Your task to perform on an android device: Go to accessibility settings Image 0: 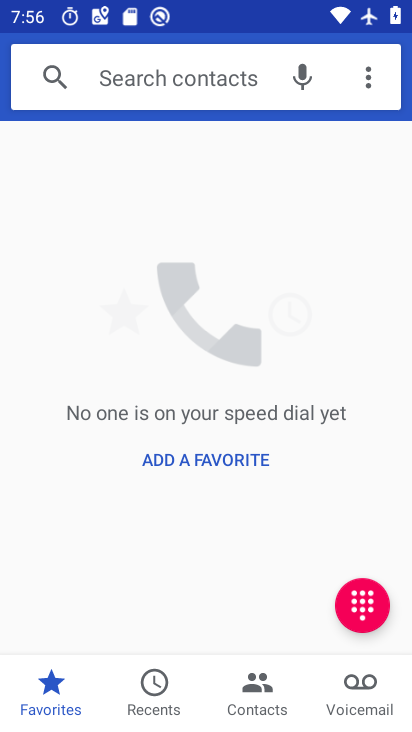
Step 0: press home button
Your task to perform on an android device: Go to accessibility settings Image 1: 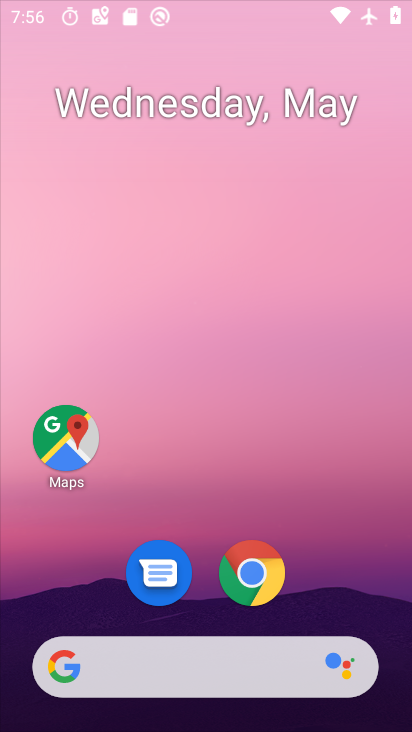
Step 1: drag from (377, 619) to (215, 124)
Your task to perform on an android device: Go to accessibility settings Image 2: 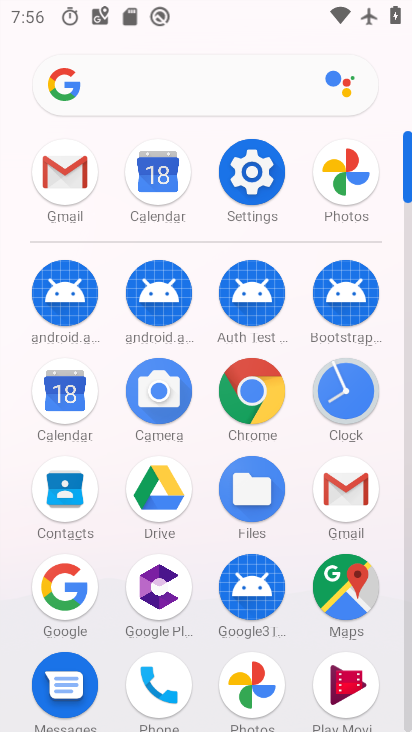
Step 2: click (247, 176)
Your task to perform on an android device: Go to accessibility settings Image 3: 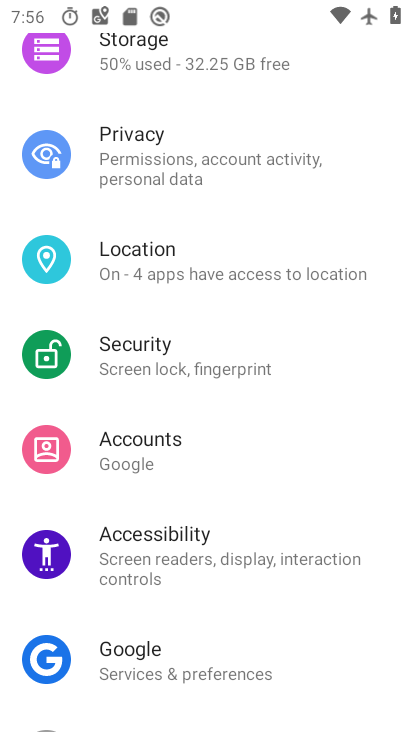
Step 3: click (210, 574)
Your task to perform on an android device: Go to accessibility settings Image 4: 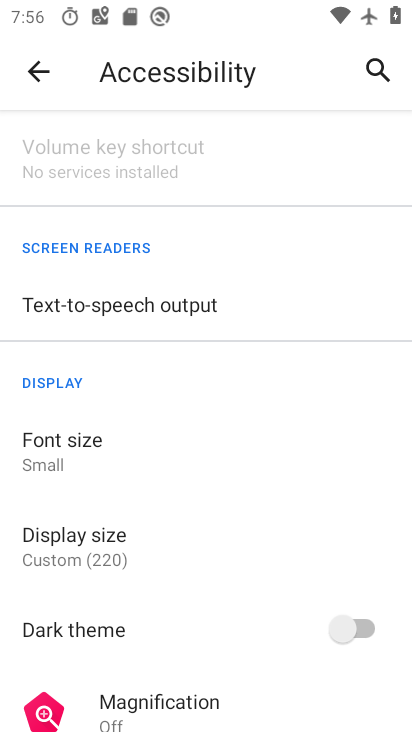
Step 4: task complete